Your task to perform on an android device: Is it going to rain tomorrow? Image 0: 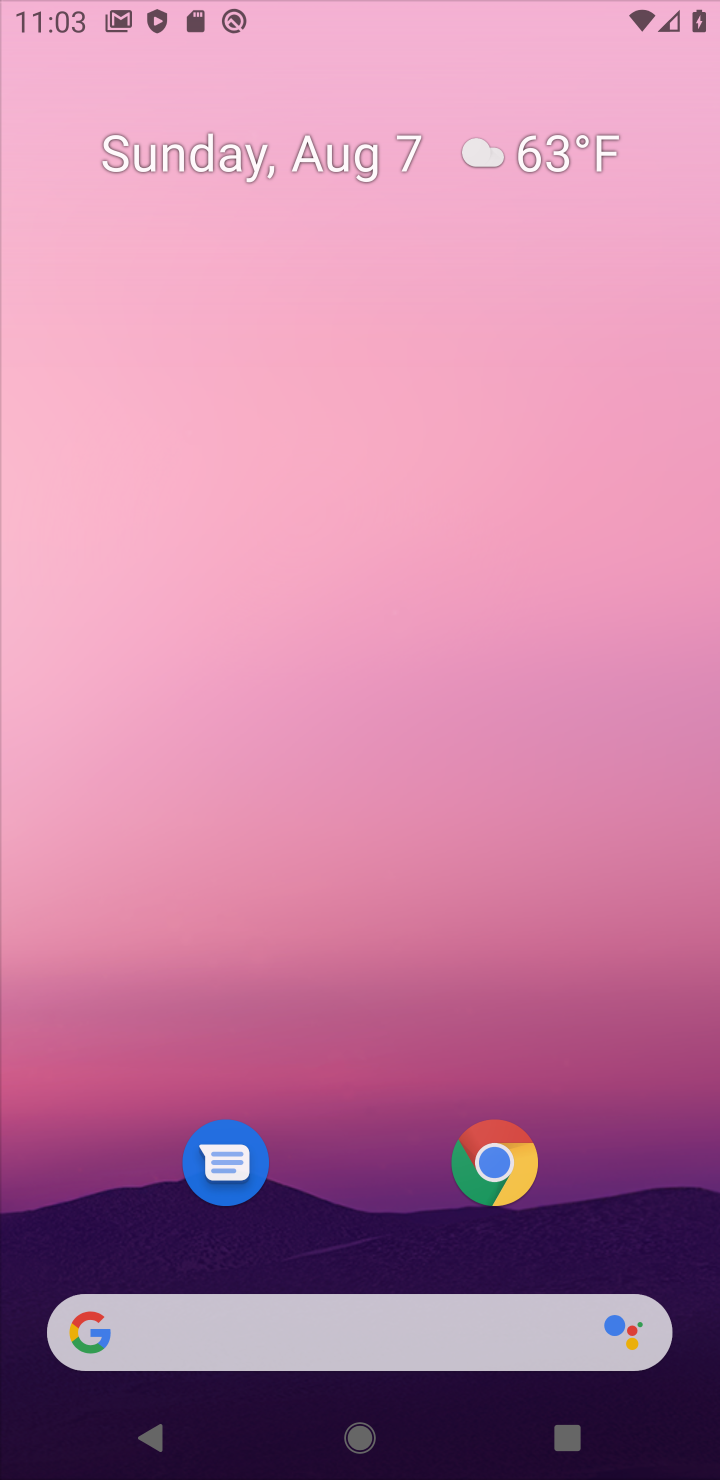
Step 0: press home button
Your task to perform on an android device: Is it going to rain tomorrow? Image 1: 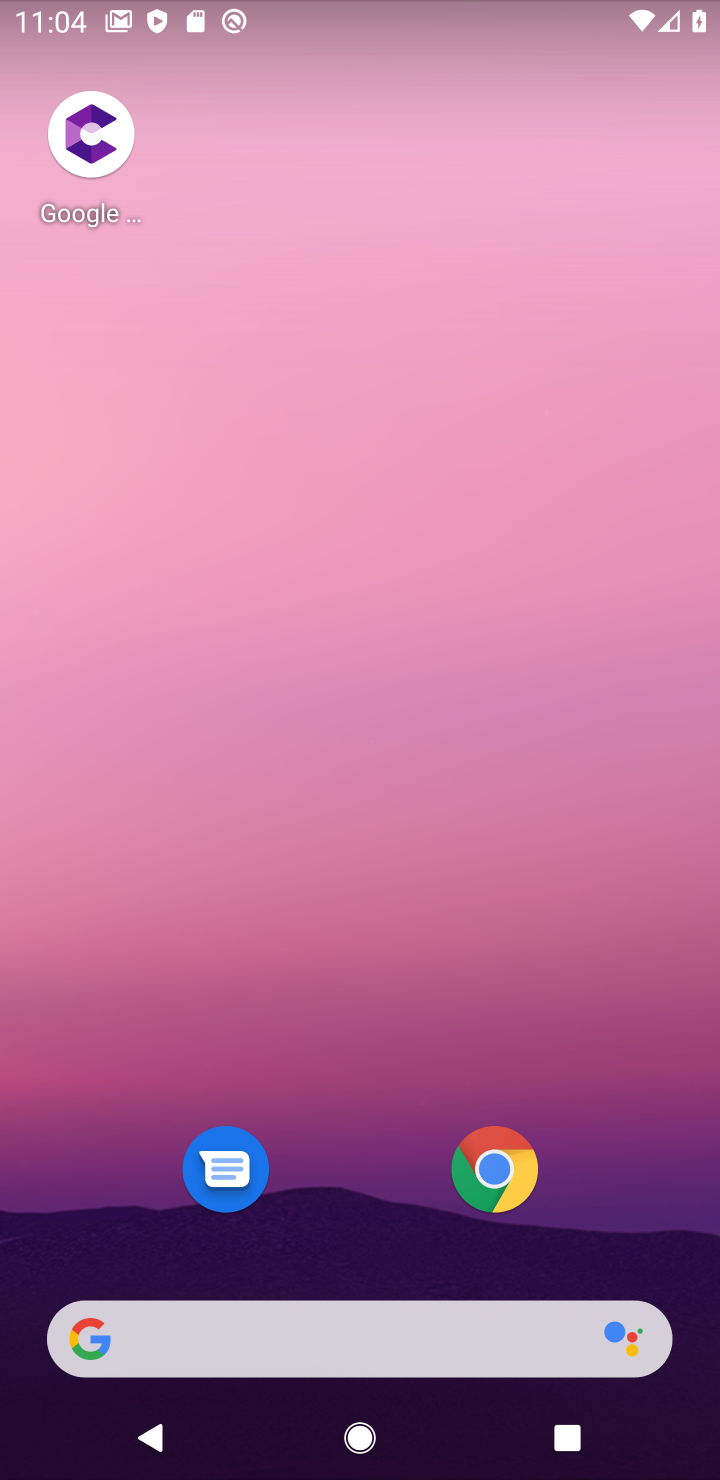
Step 1: drag from (235, 1229) to (409, 74)
Your task to perform on an android device: Is it going to rain tomorrow? Image 2: 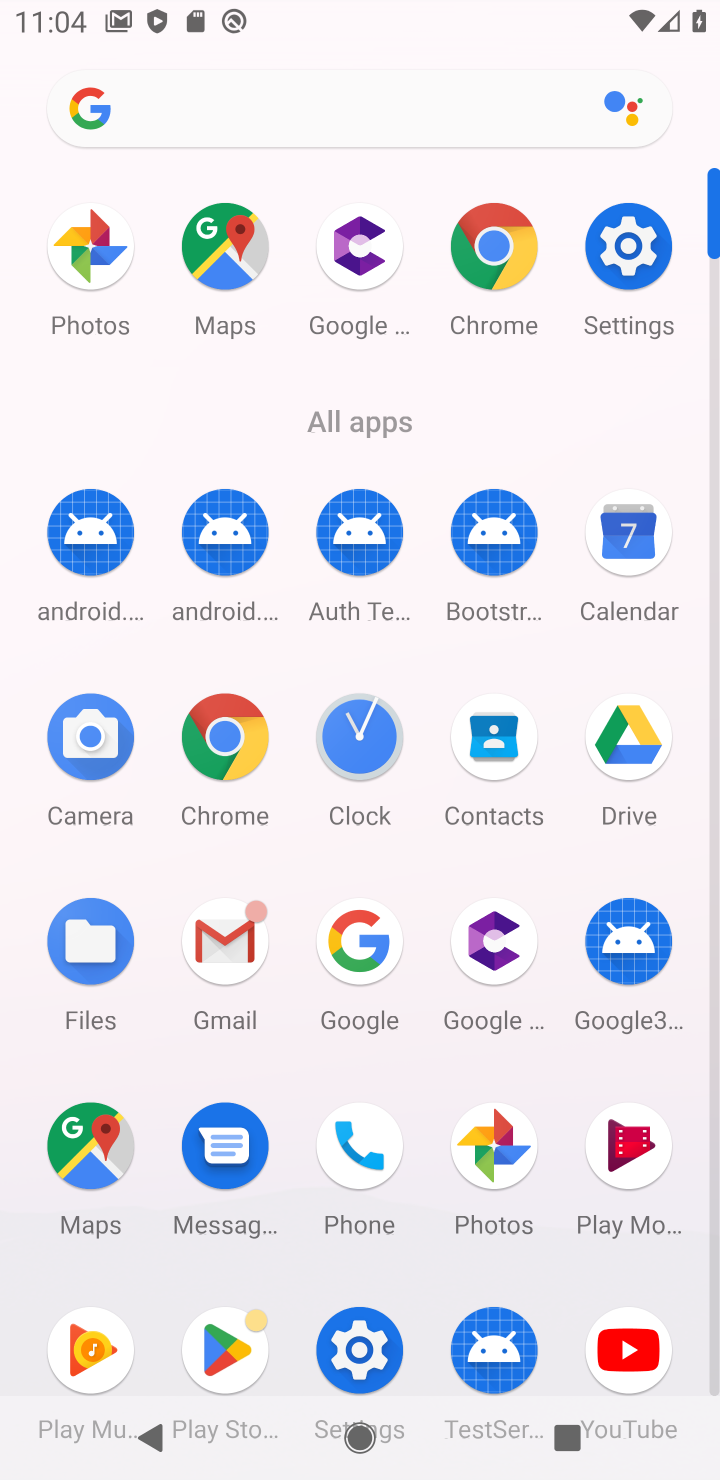
Step 2: click (357, 944)
Your task to perform on an android device: Is it going to rain tomorrow? Image 3: 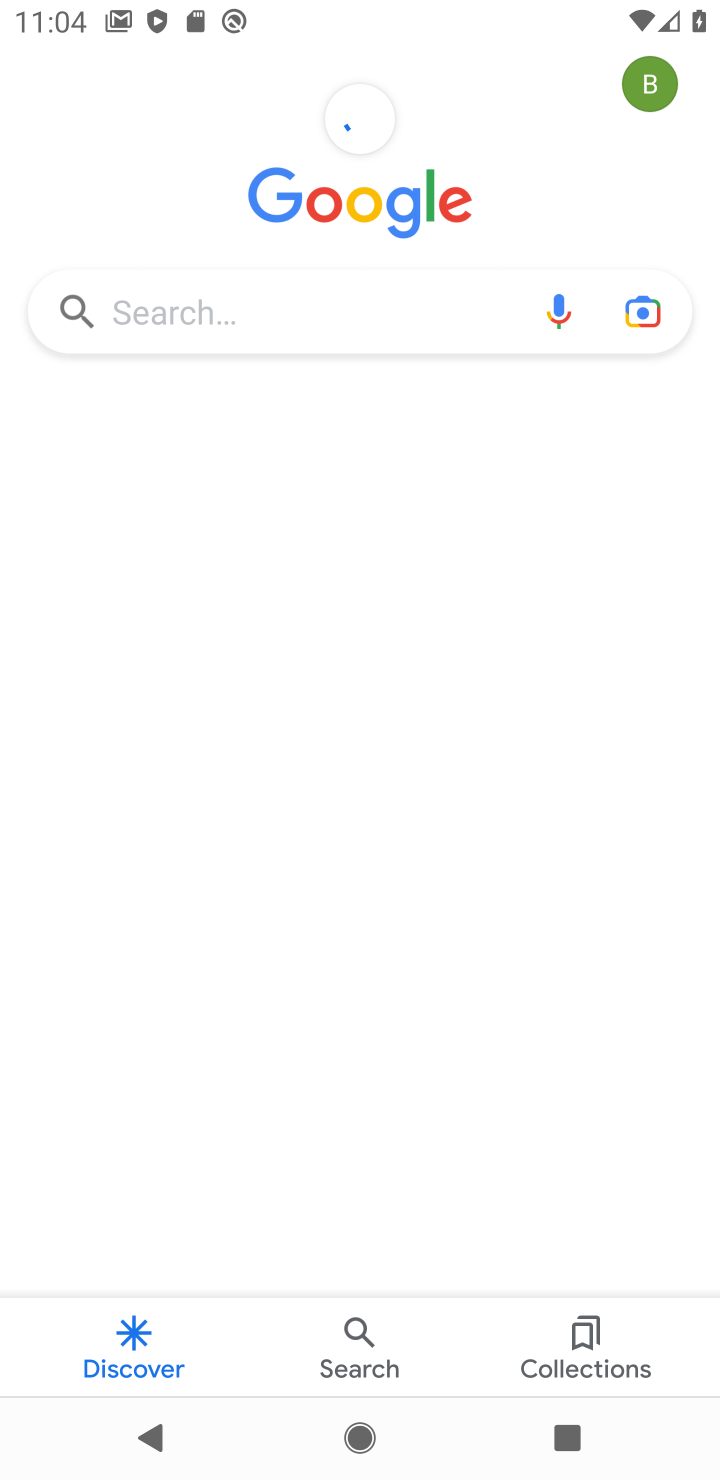
Step 3: click (293, 282)
Your task to perform on an android device: Is it going to rain tomorrow? Image 4: 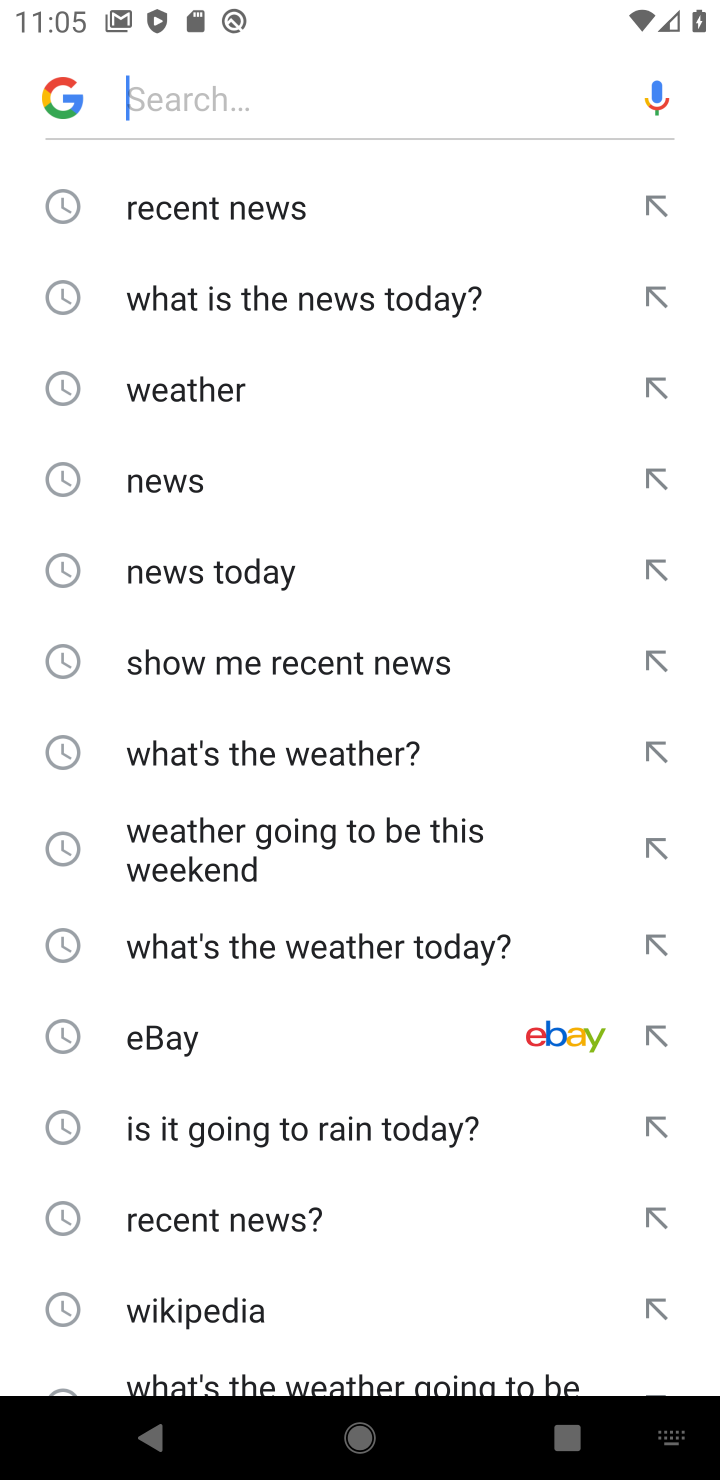
Step 4: click (214, 406)
Your task to perform on an android device: Is it going to rain tomorrow? Image 5: 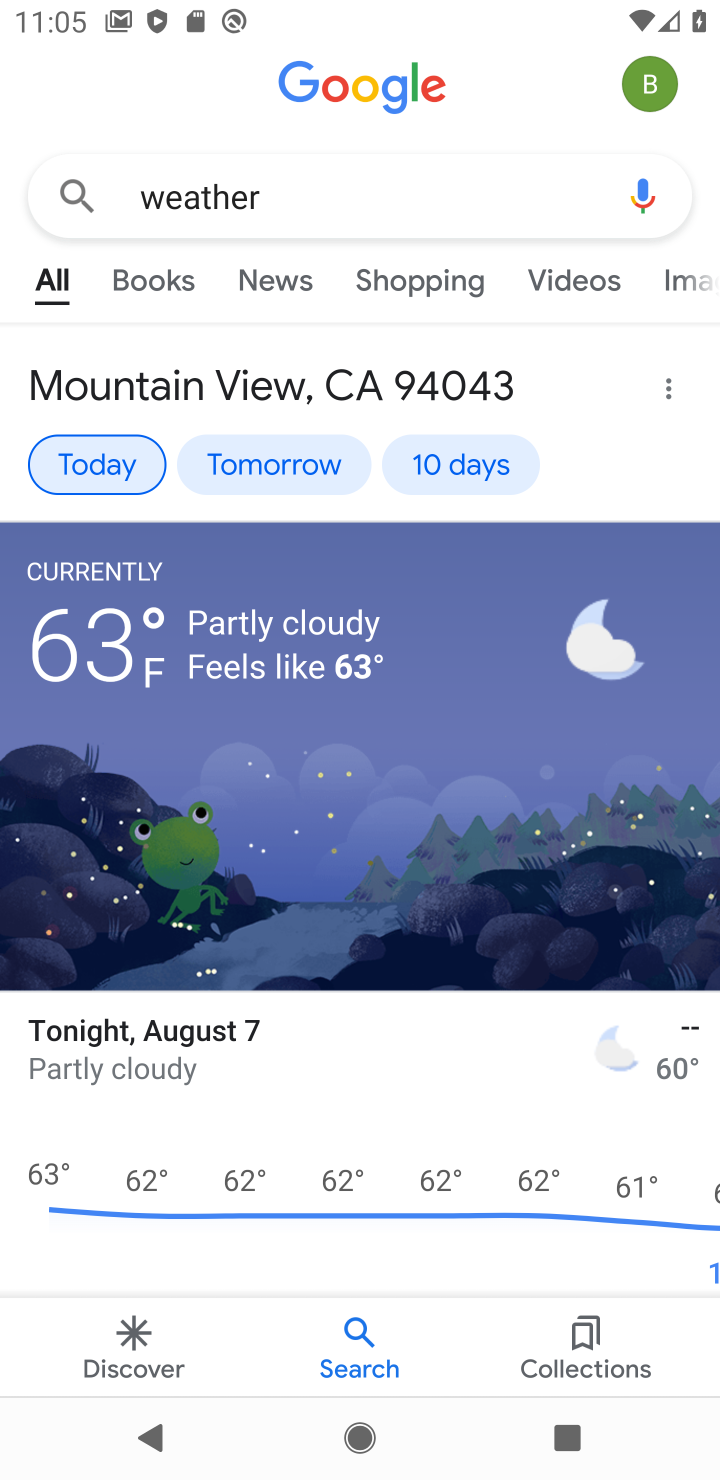
Step 5: click (248, 455)
Your task to perform on an android device: Is it going to rain tomorrow? Image 6: 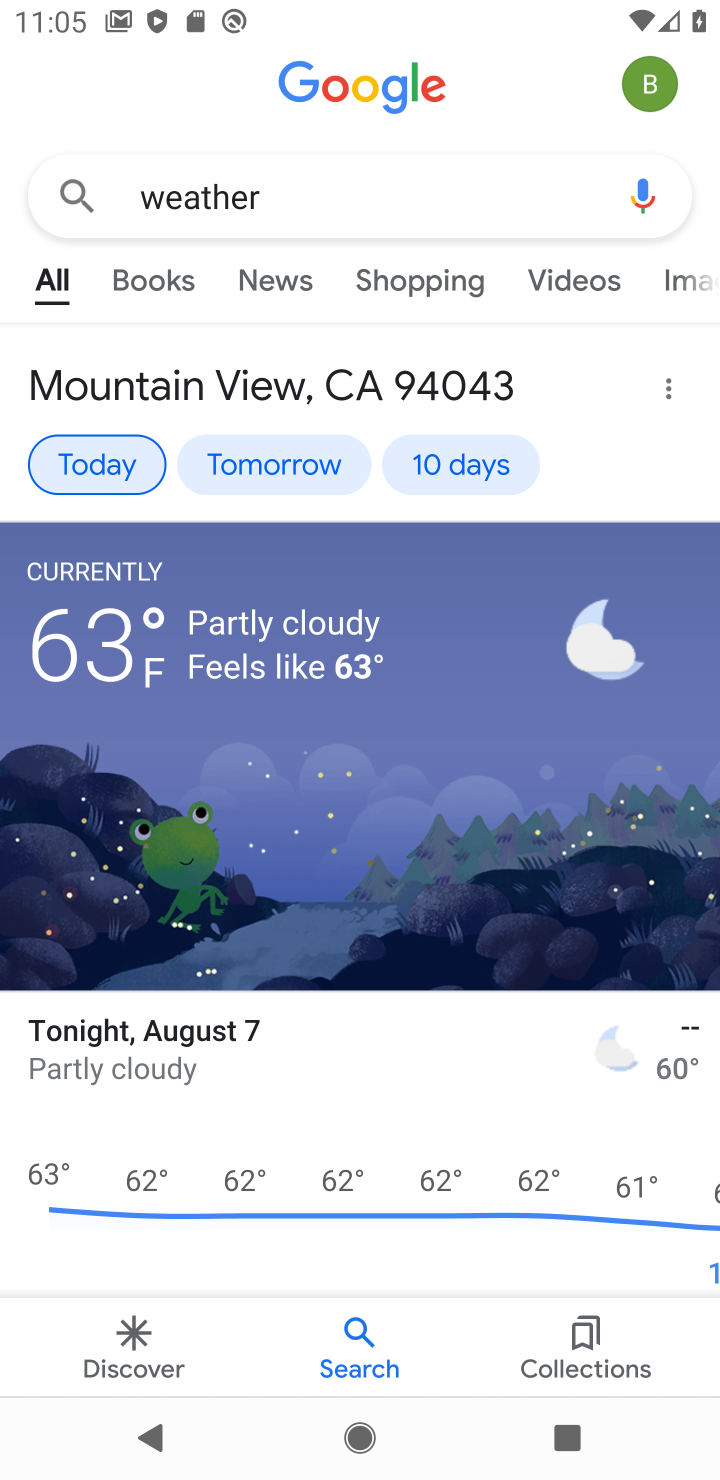
Step 6: click (242, 464)
Your task to perform on an android device: Is it going to rain tomorrow? Image 7: 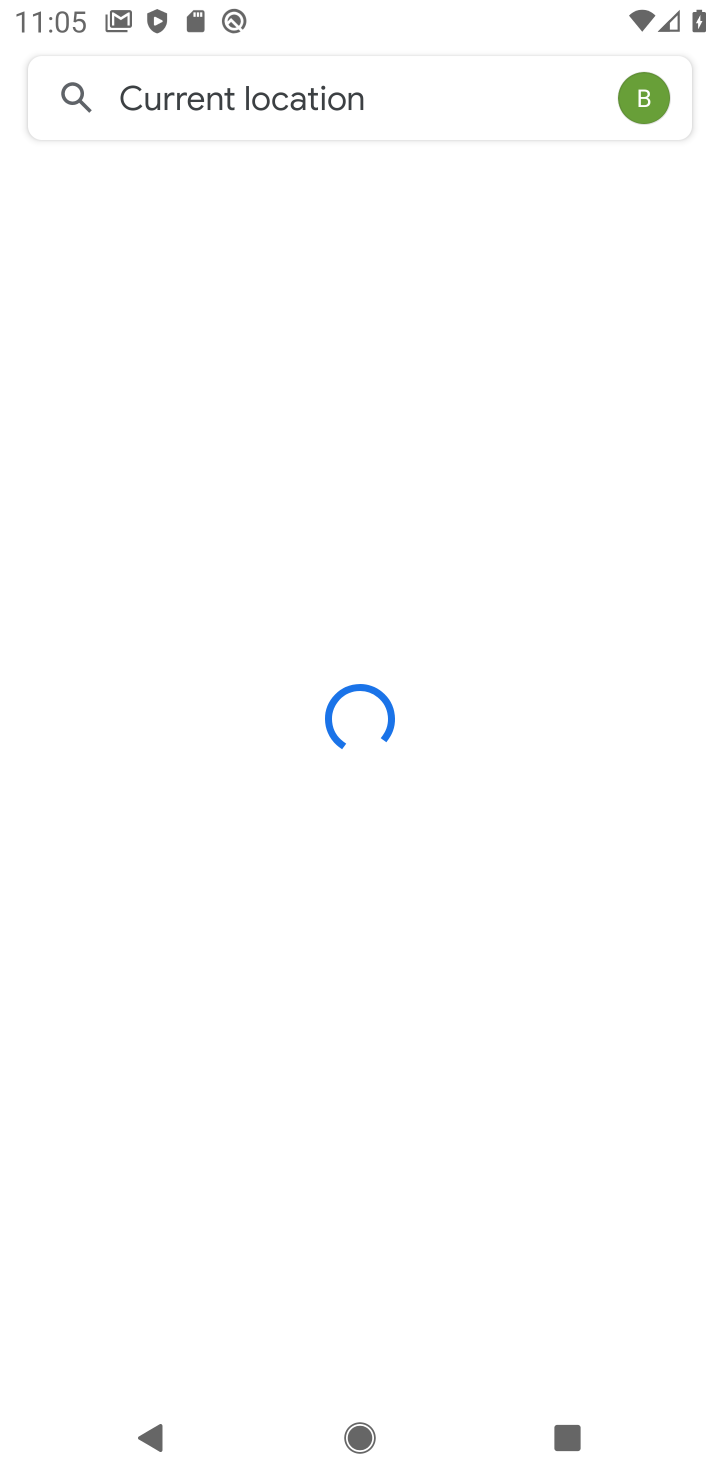
Step 7: task complete